Your task to perform on an android device: Open Google Chrome and open the bookmarks view Image 0: 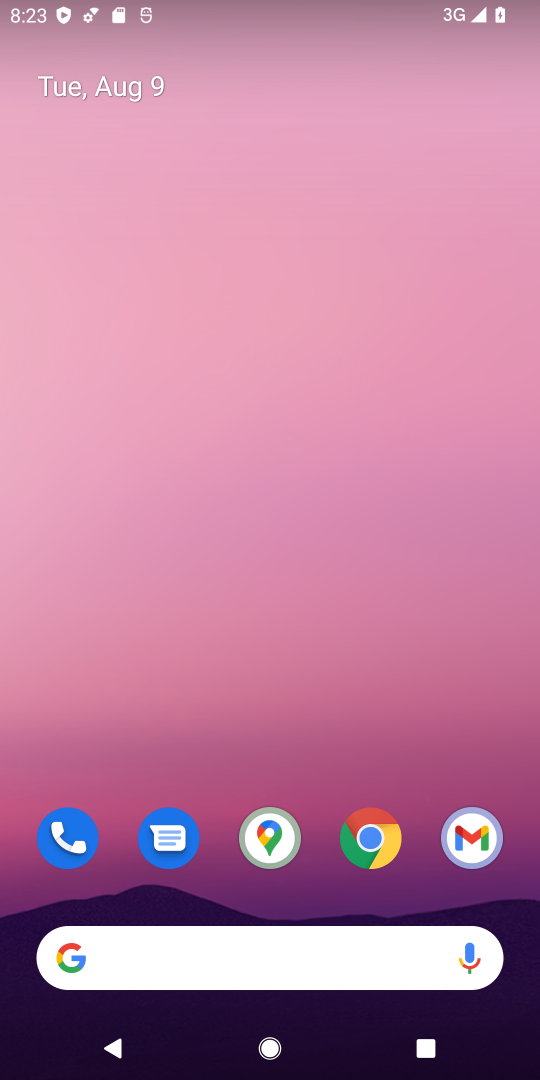
Step 0: click (355, 842)
Your task to perform on an android device: Open Google Chrome and open the bookmarks view Image 1: 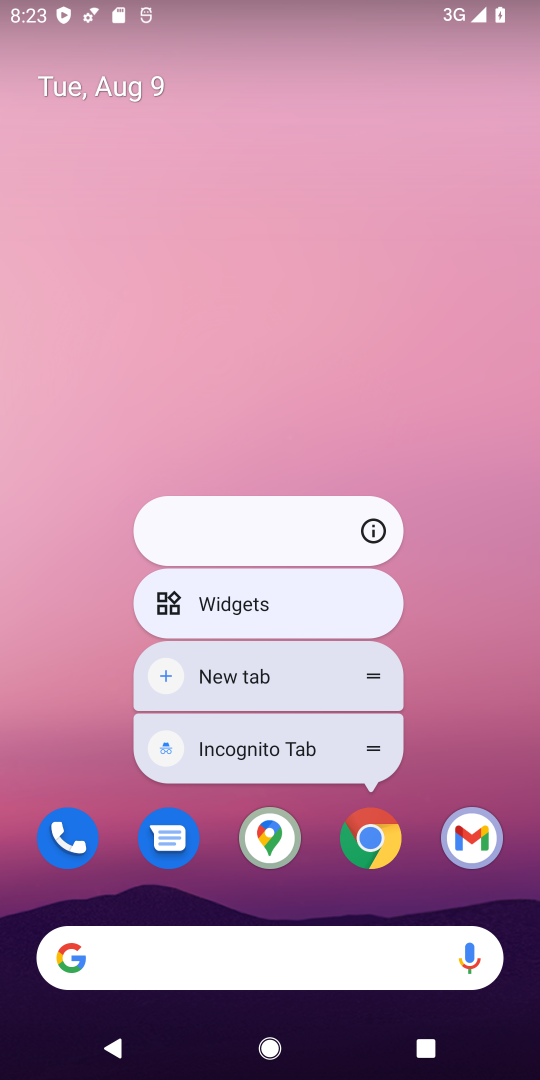
Step 1: click (355, 842)
Your task to perform on an android device: Open Google Chrome and open the bookmarks view Image 2: 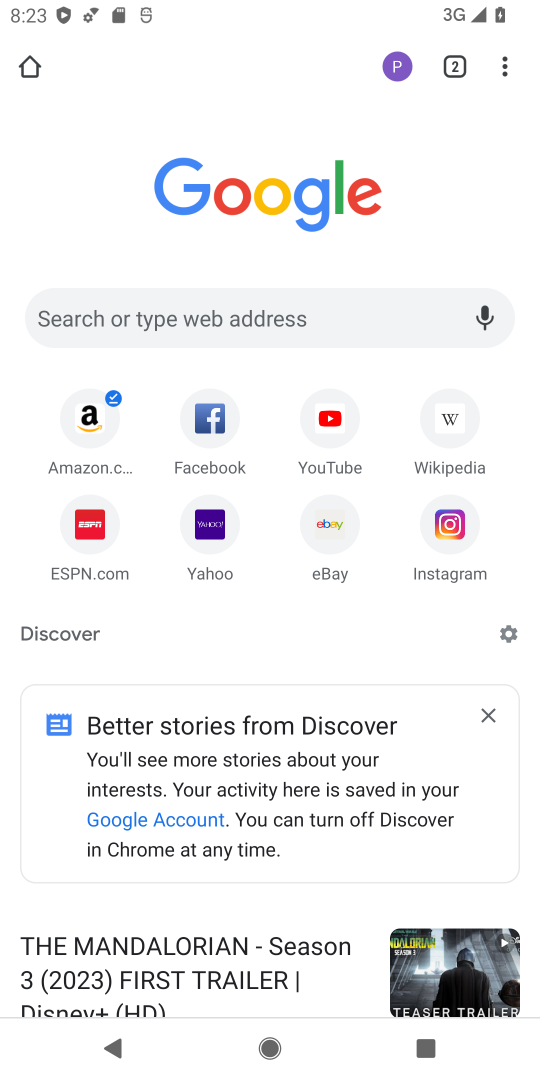
Step 2: drag from (508, 64) to (351, 471)
Your task to perform on an android device: Open Google Chrome and open the bookmarks view Image 3: 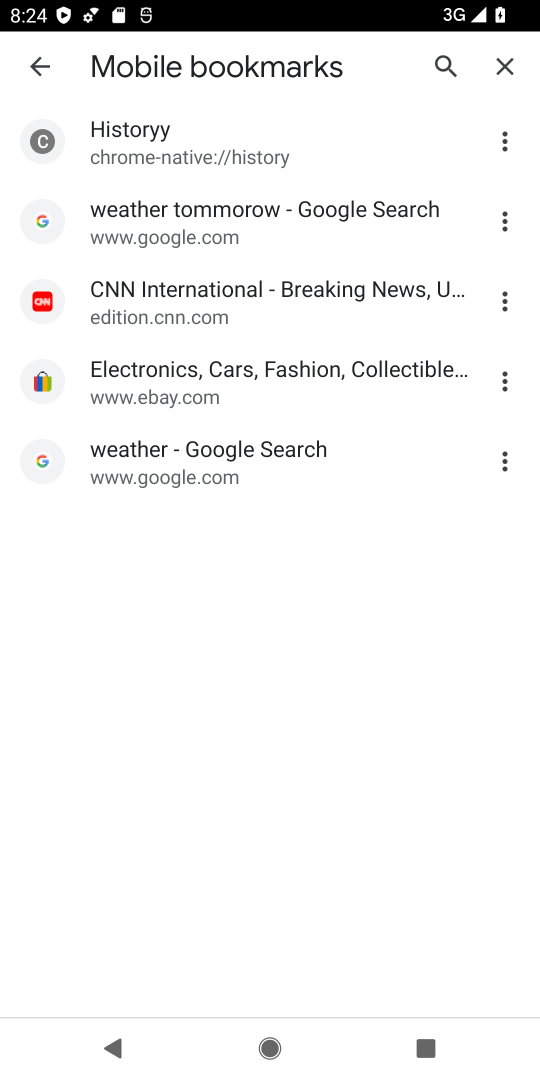
Step 3: click (189, 283)
Your task to perform on an android device: Open Google Chrome and open the bookmarks view Image 4: 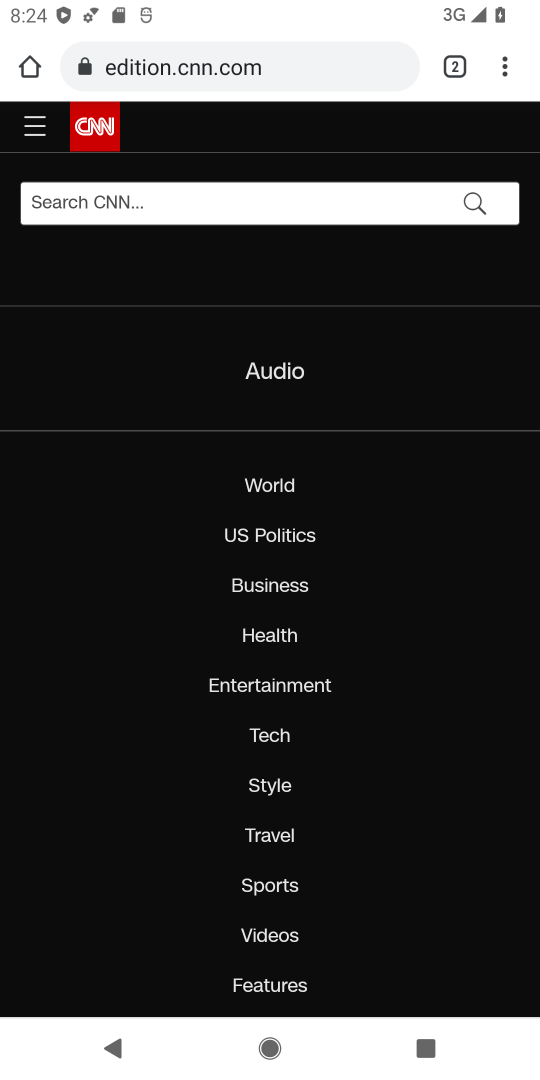
Step 4: task complete